Your task to perform on an android device: Clear the shopping cart on newegg. Image 0: 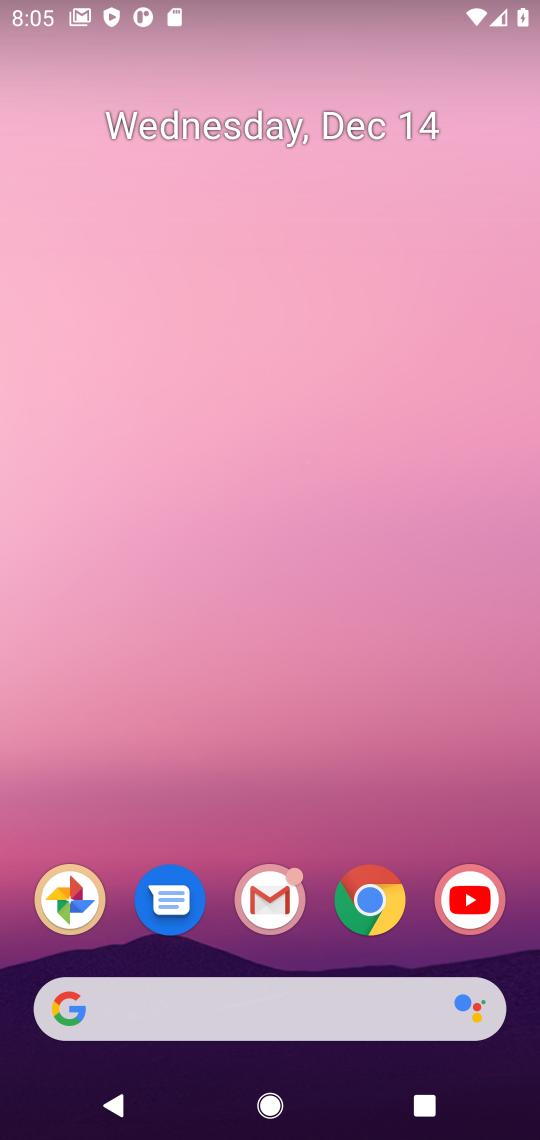
Step 0: click (381, 915)
Your task to perform on an android device: Clear the shopping cart on newegg. Image 1: 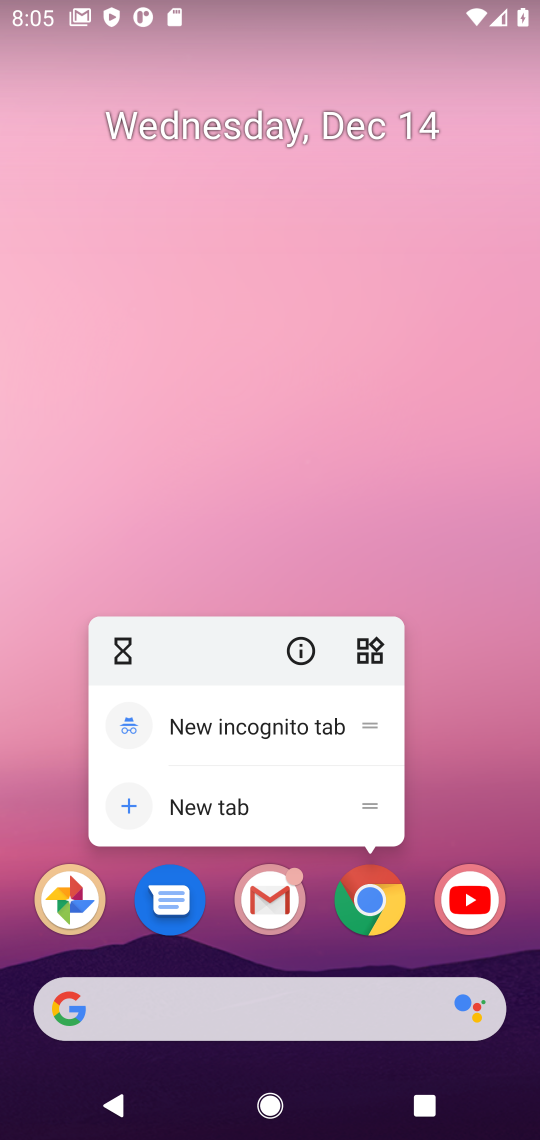
Step 1: click (373, 908)
Your task to perform on an android device: Clear the shopping cart on newegg. Image 2: 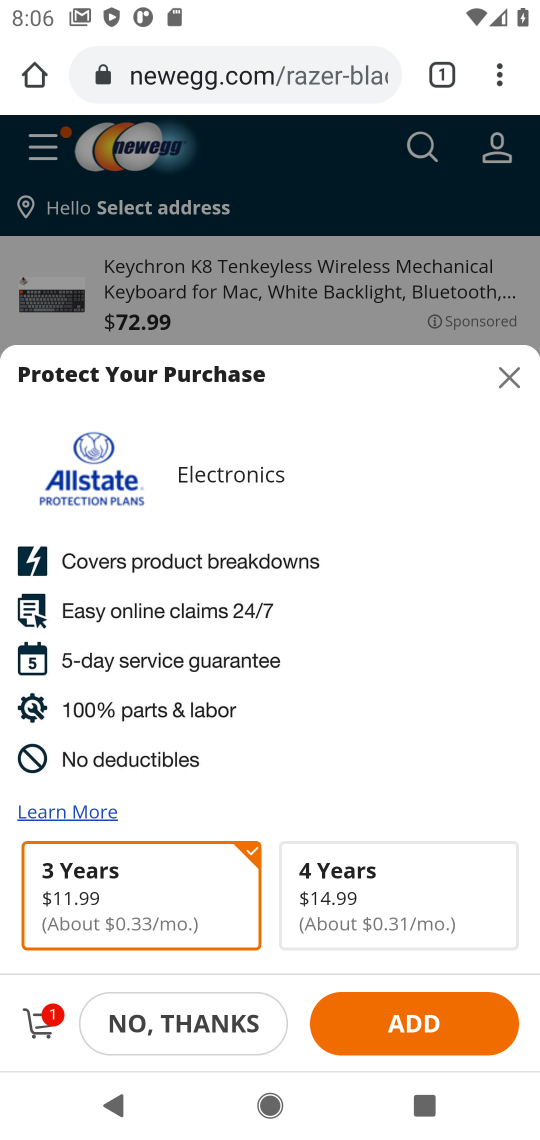
Step 2: click (40, 1025)
Your task to perform on an android device: Clear the shopping cart on newegg. Image 3: 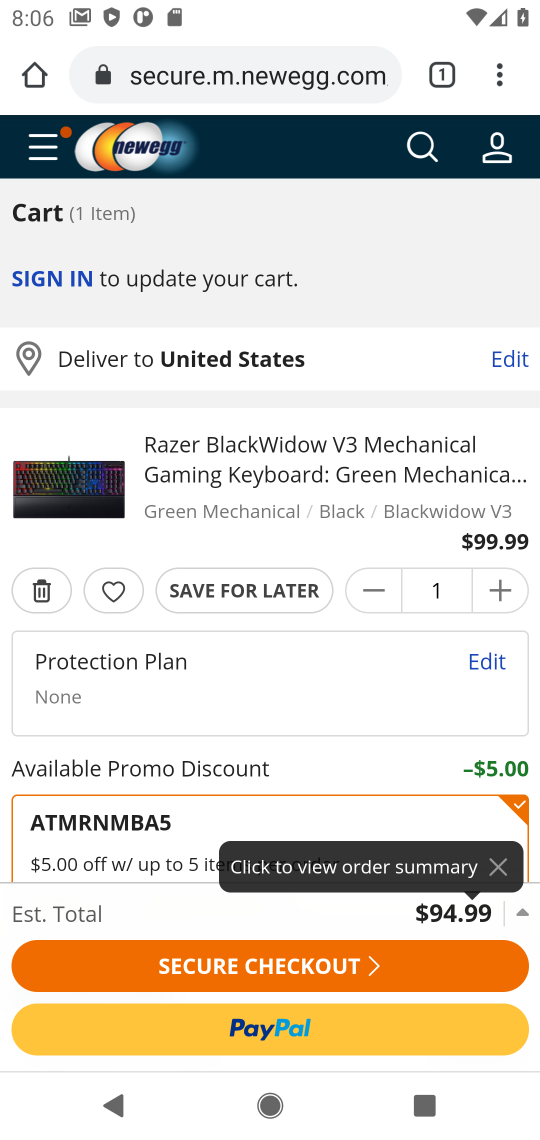
Step 3: click (49, 603)
Your task to perform on an android device: Clear the shopping cart on newegg. Image 4: 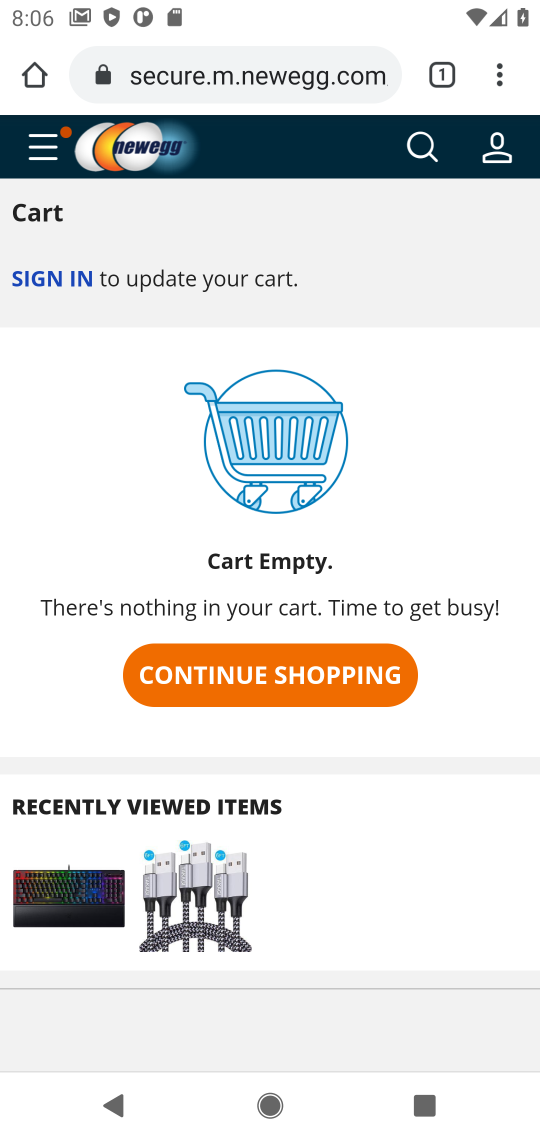
Step 4: task complete